Your task to perform on an android device: Go to internet settings Image 0: 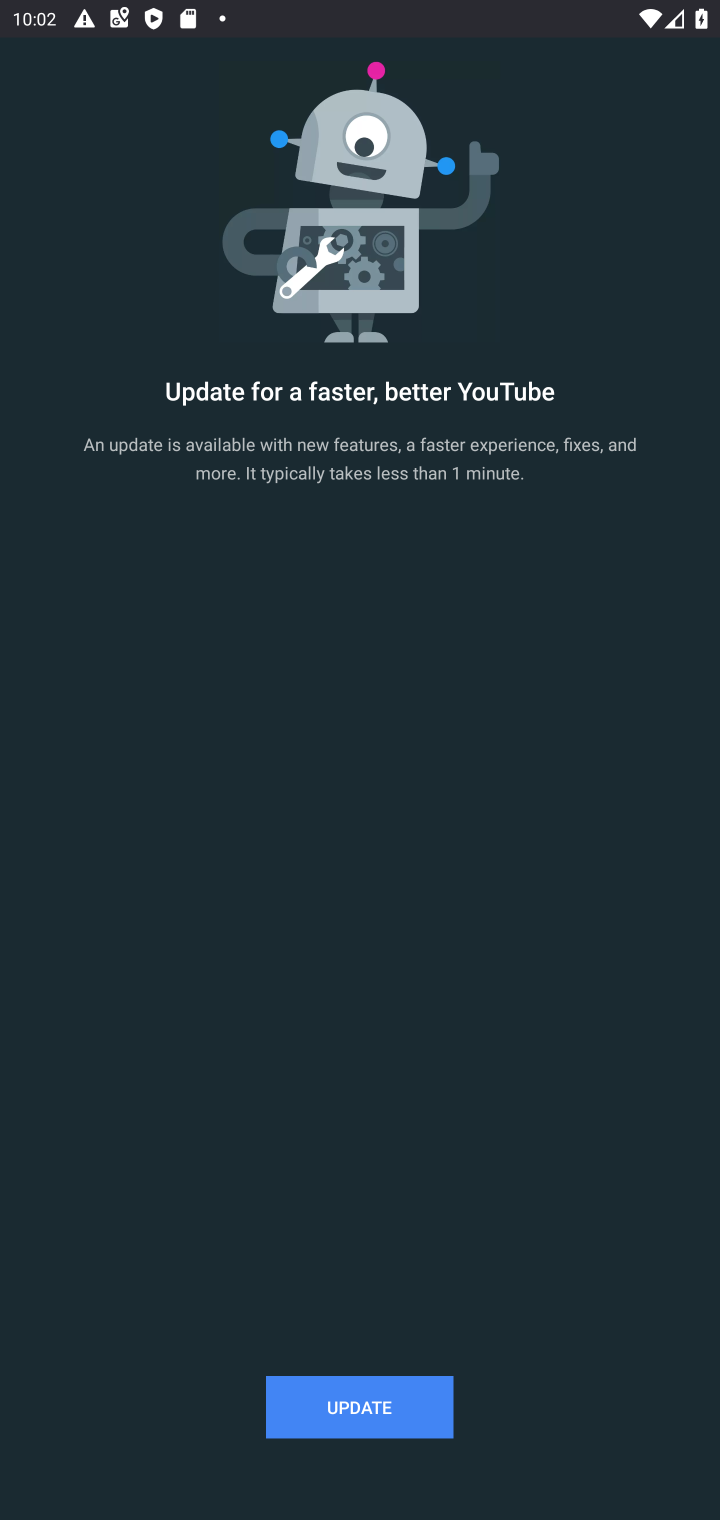
Step 0: press home button
Your task to perform on an android device: Go to internet settings Image 1: 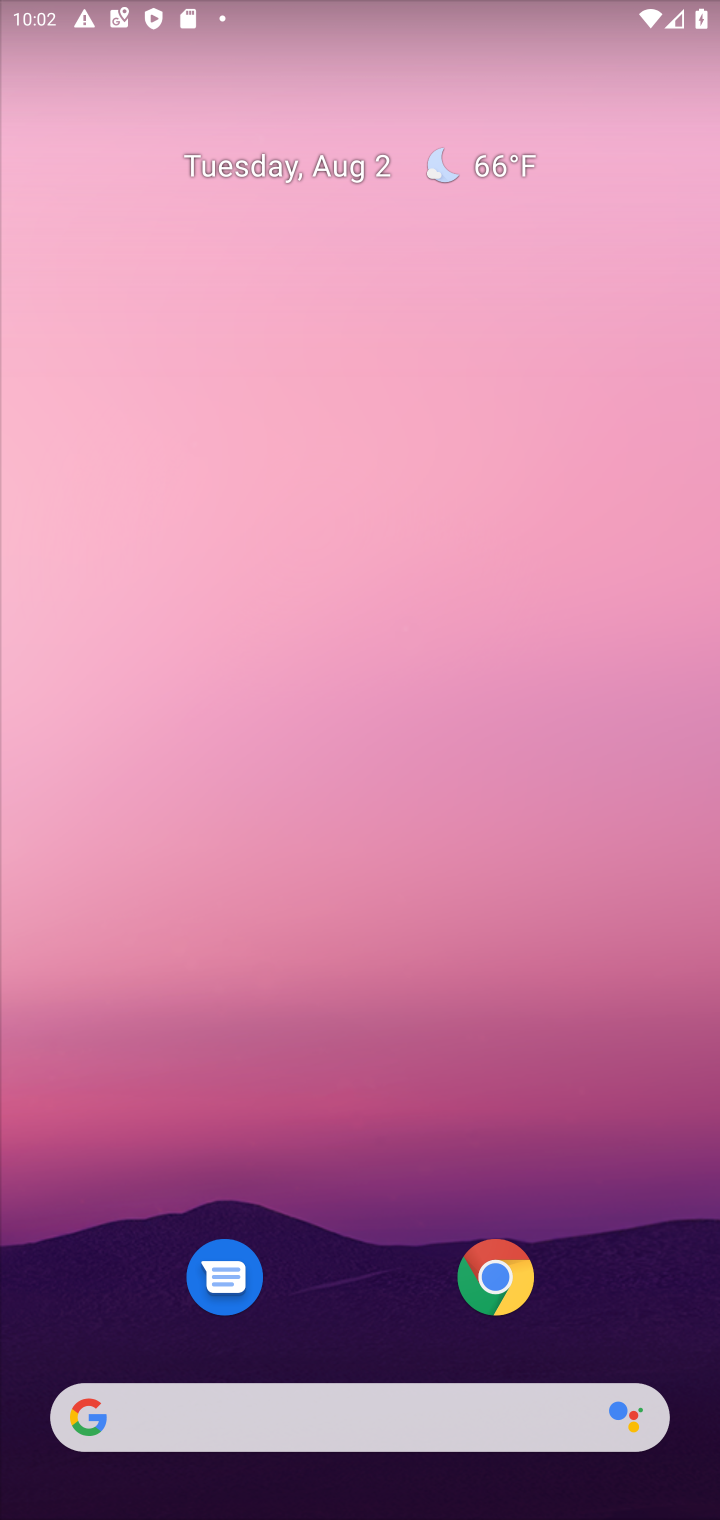
Step 1: drag from (371, 1168) to (437, 343)
Your task to perform on an android device: Go to internet settings Image 2: 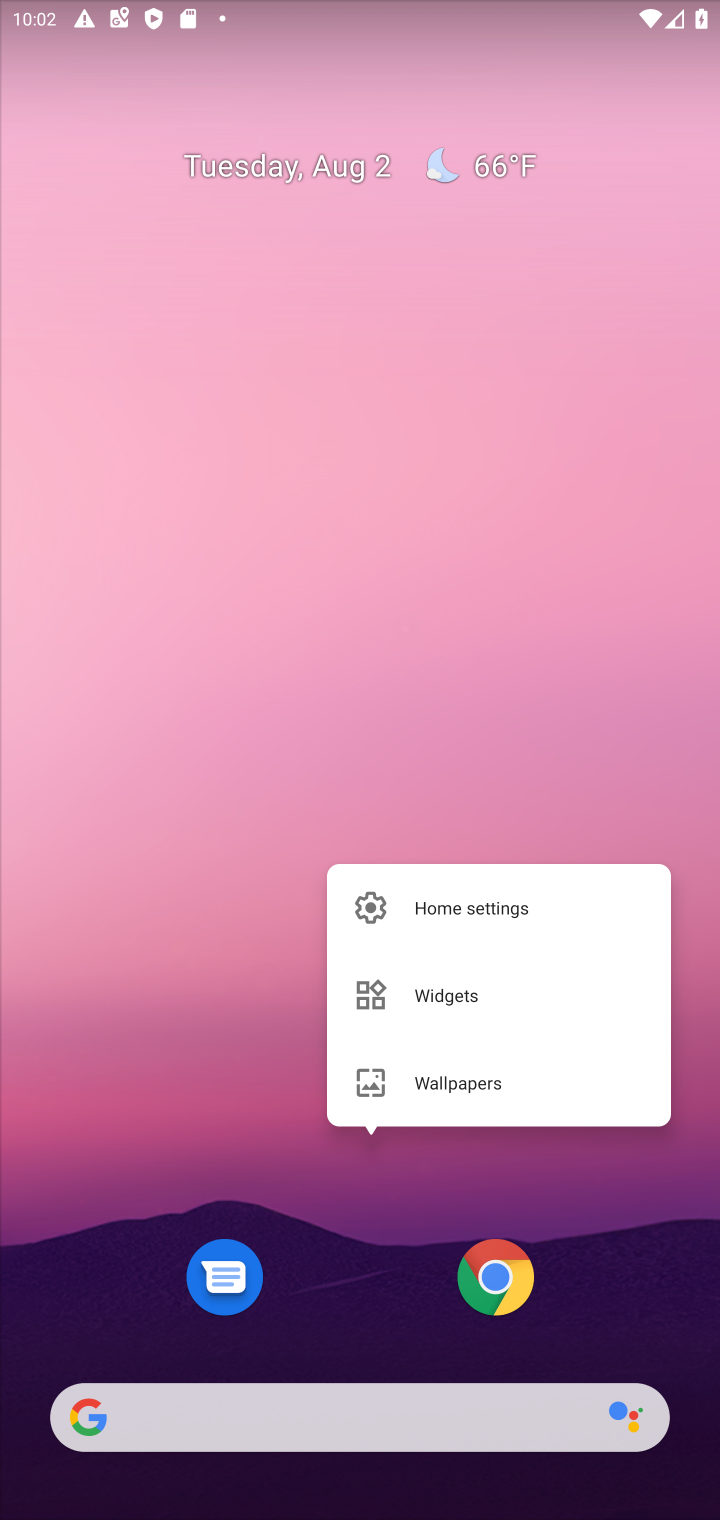
Step 2: click (382, 478)
Your task to perform on an android device: Go to internet settings Image 3: 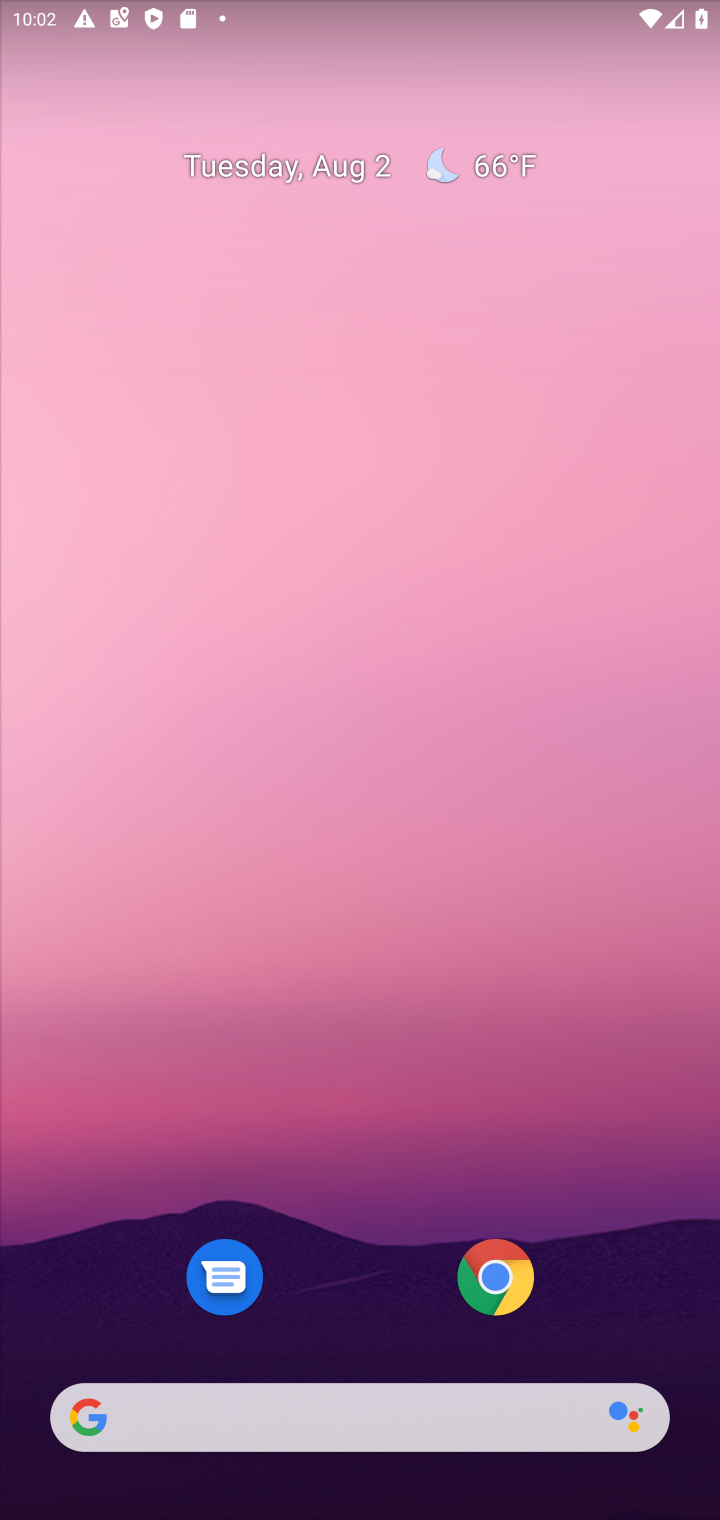
Step 3: drag from (357, 1058) to (431, 274)
Your task to perform on an android device: Go to internet settings Image 4: 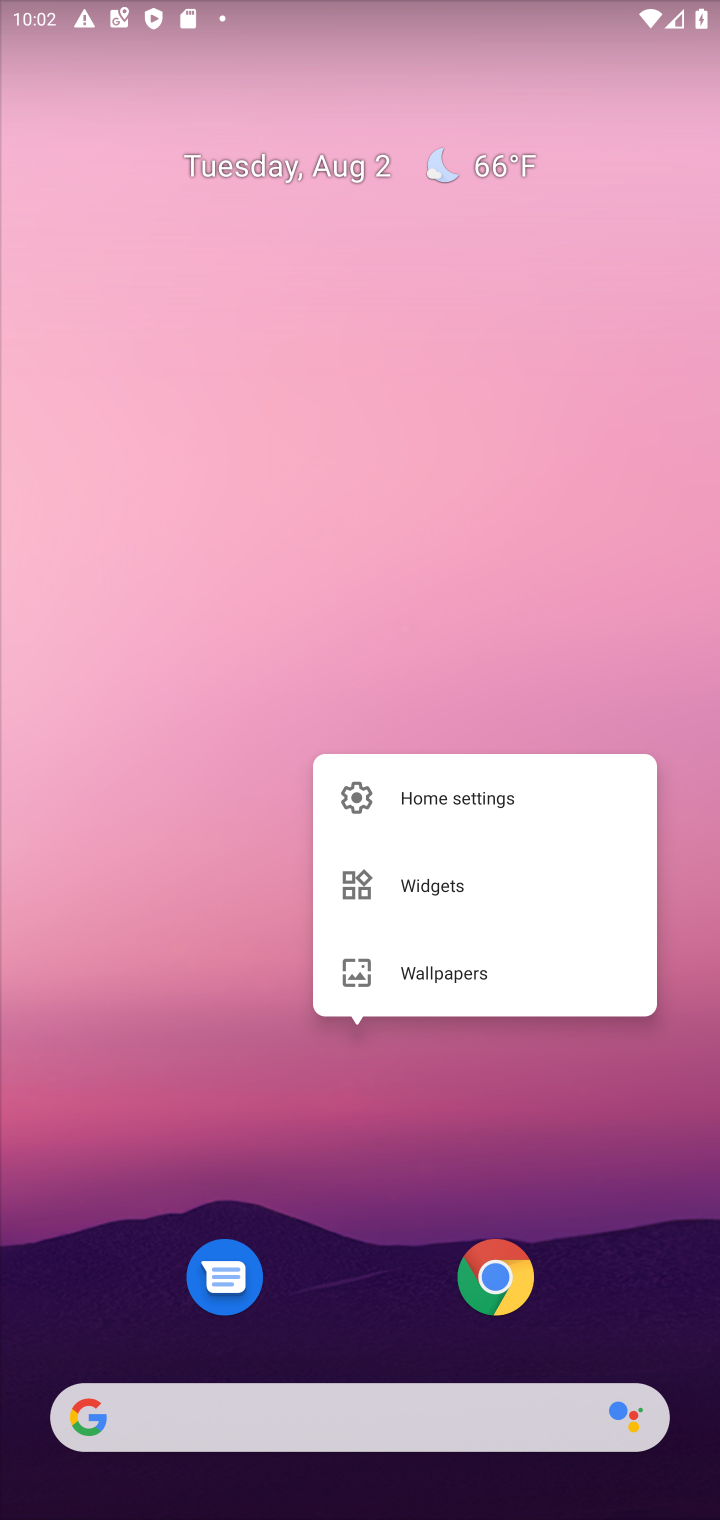
Step 4: click (305, 638)
Your task to perform on an android device: Go to internet settings Image 5: 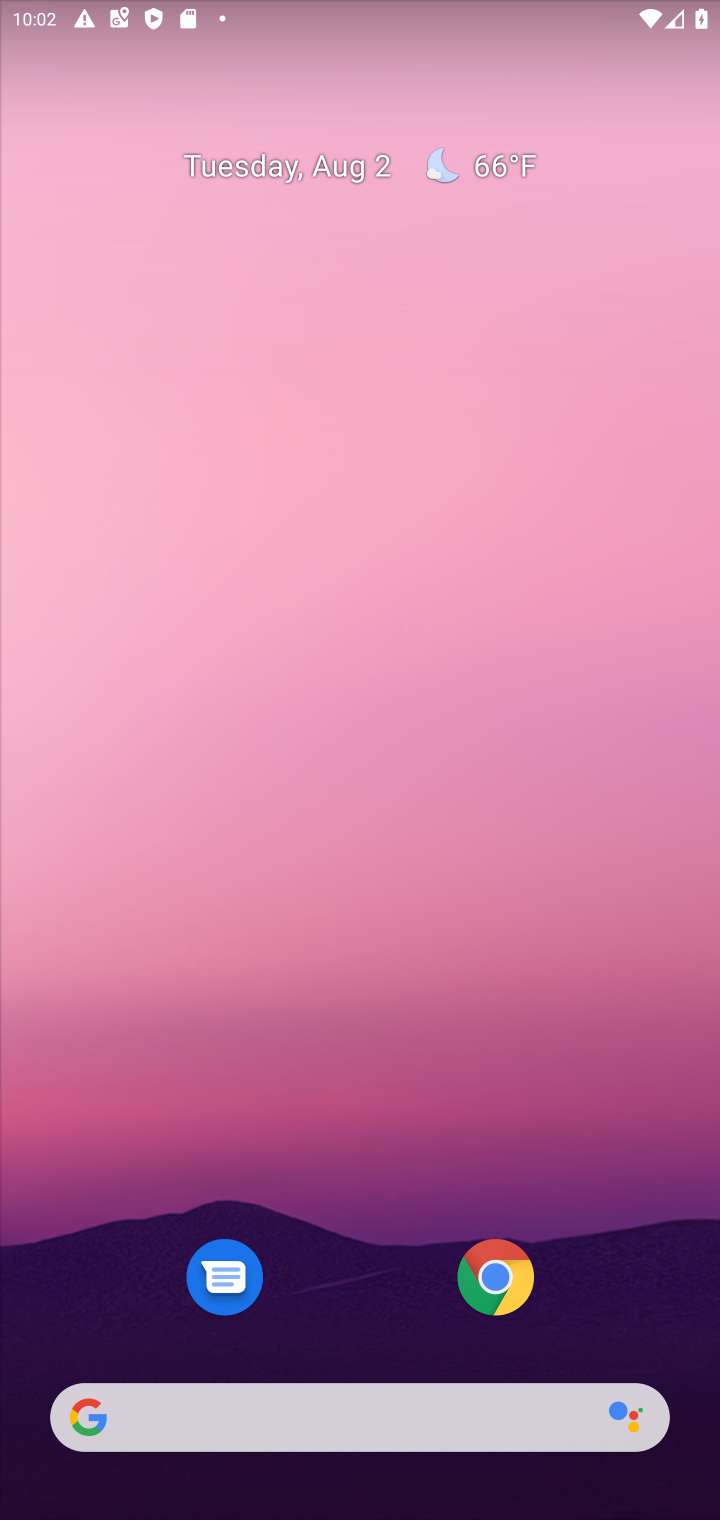
Step 5: click (305, 638)
Your task to perform on an android device: Go to internet settings Image 6: 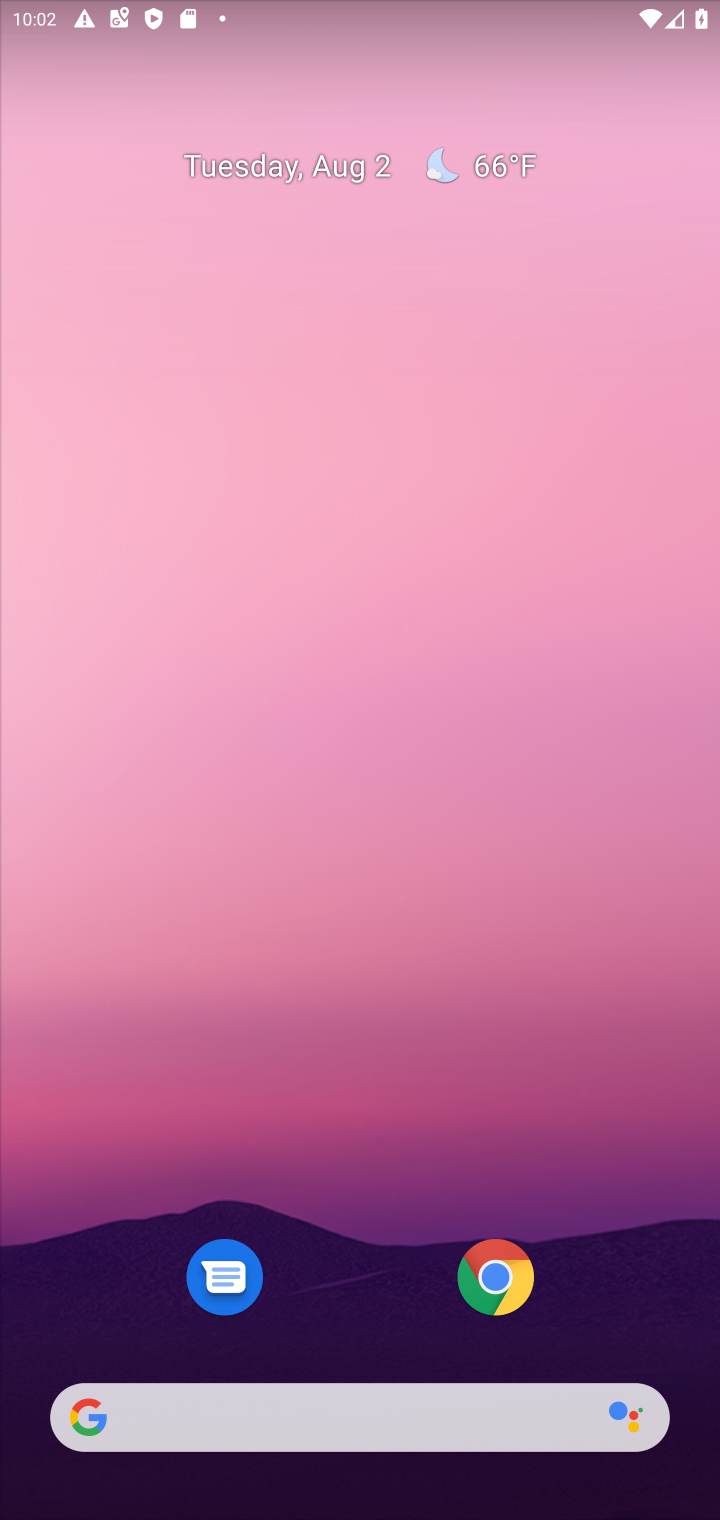
Step 6: drag from (352, 1203) to (462, 314)
Your task to perform on an android device: Go to internet settings Image 7: 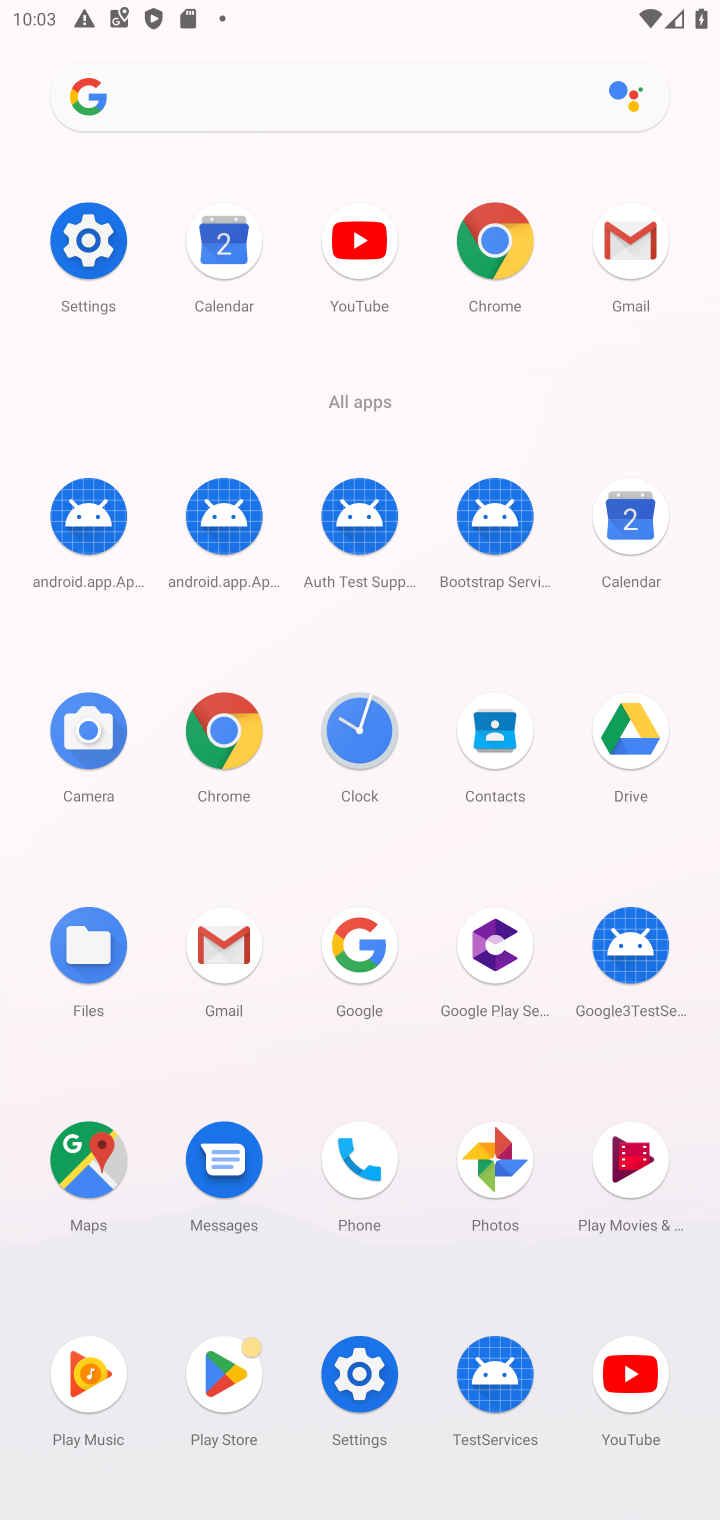
Step 7: click (370, 1402)
Your task to perform on an android device: Go to internet settings Image 8: 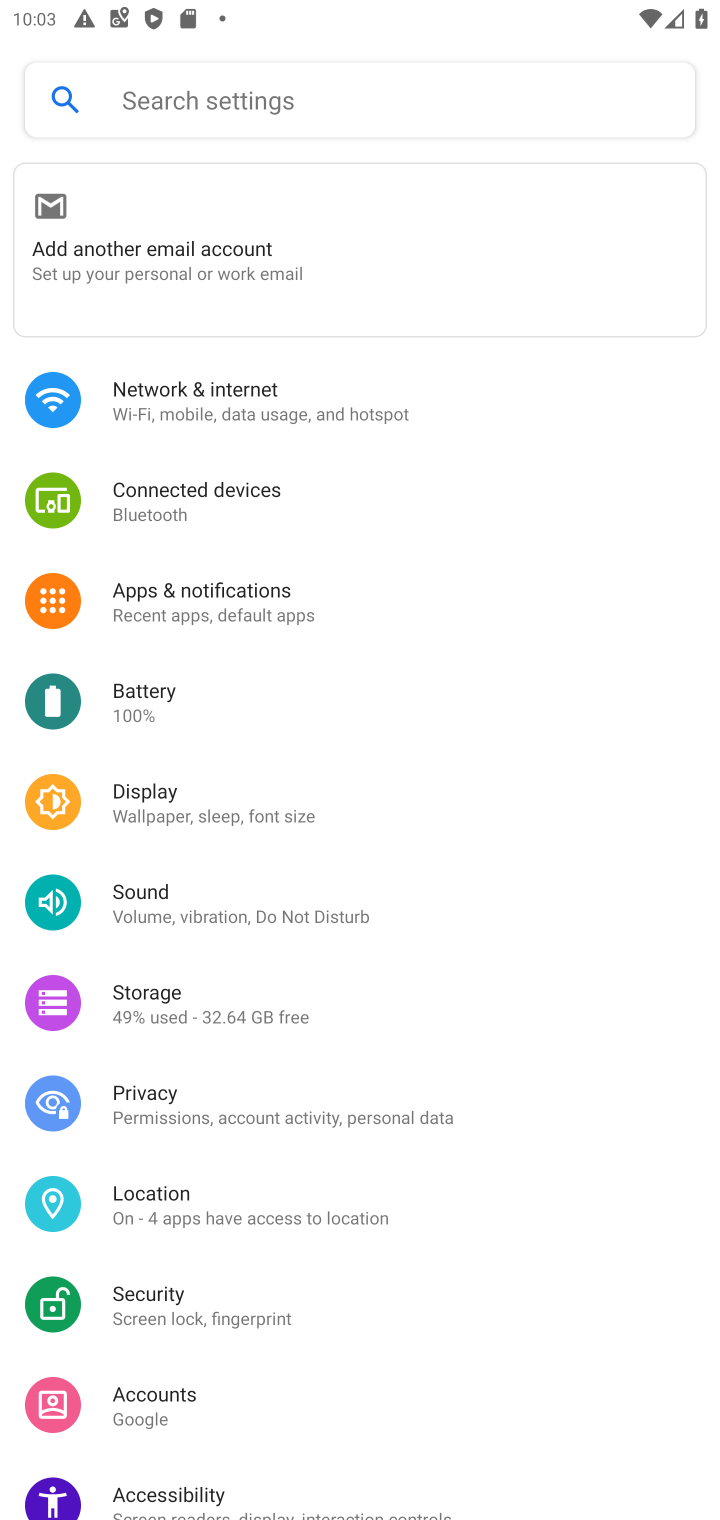
Step 8: click (323, 392)
Your task to perform on an android device: Go to internet settings Image 9: 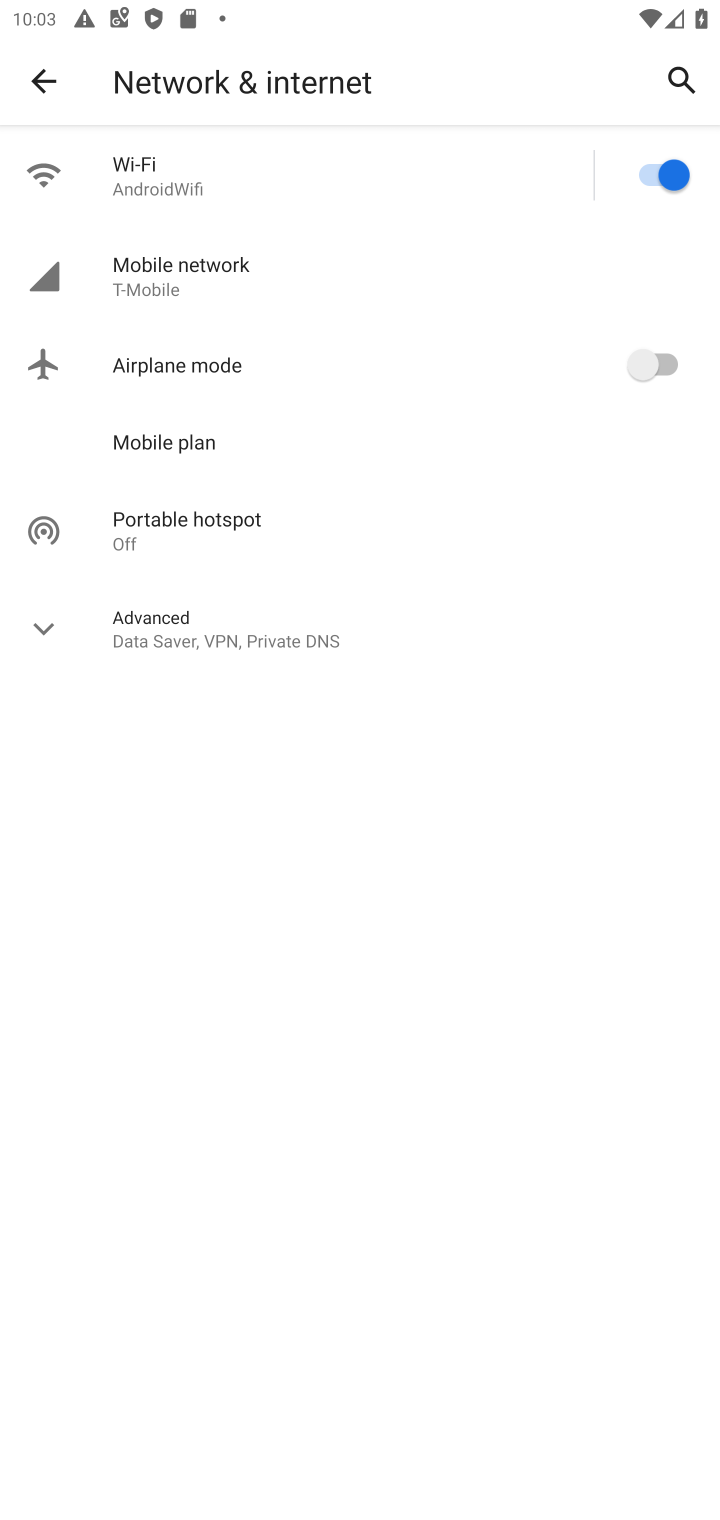
Step 9: task complete